Your task to perform on an android device: Search for flights from Seoul to Mexico city Image 0: 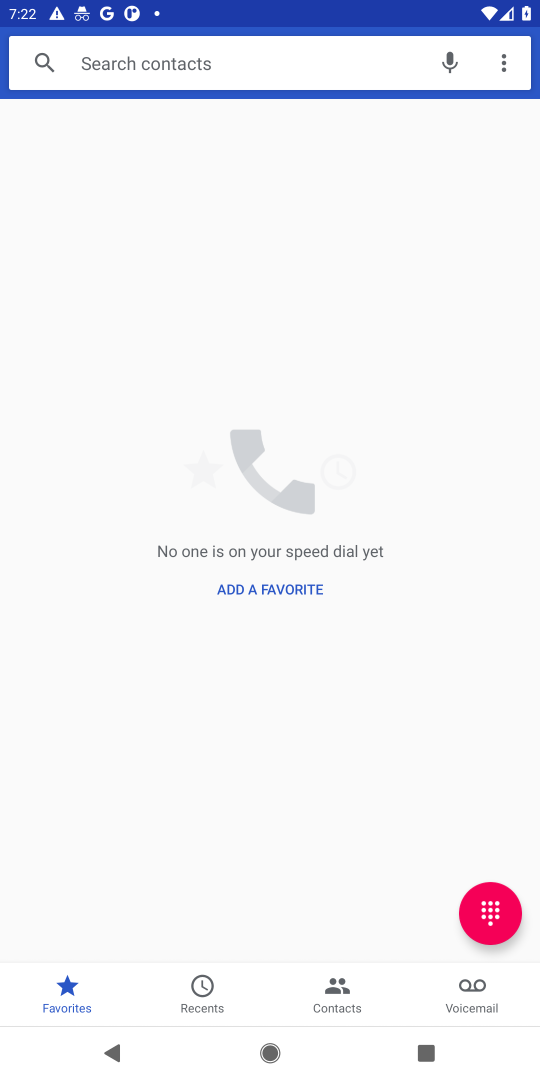
Step 0: press home button
Your task to perform on an android device: Search for flights from Seoul to Mexico city Image 1: 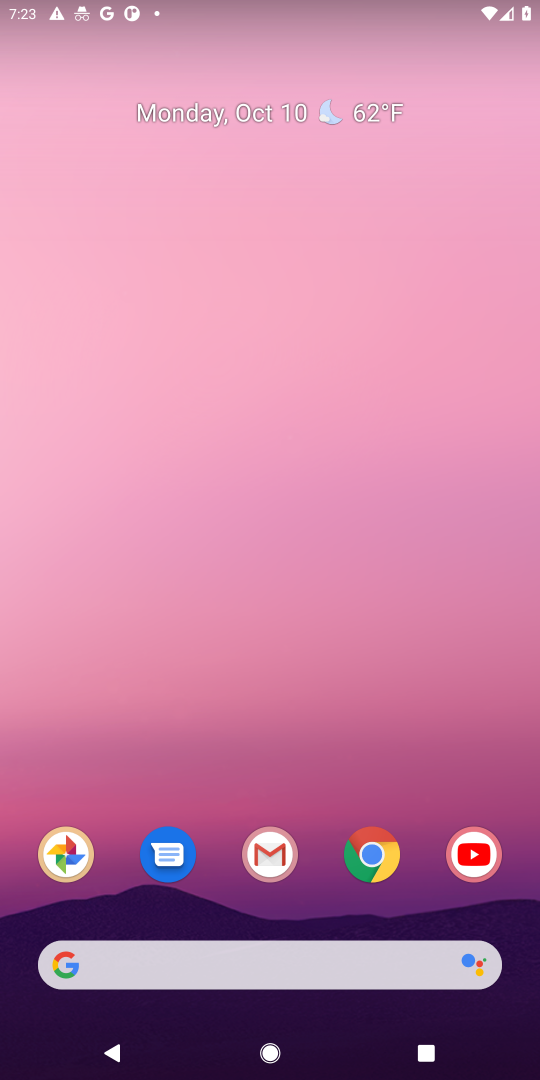
Step 1: click (375, 853)
Your task to perform on an android device: Search for flights from Seoul to Mexico city Image 2: 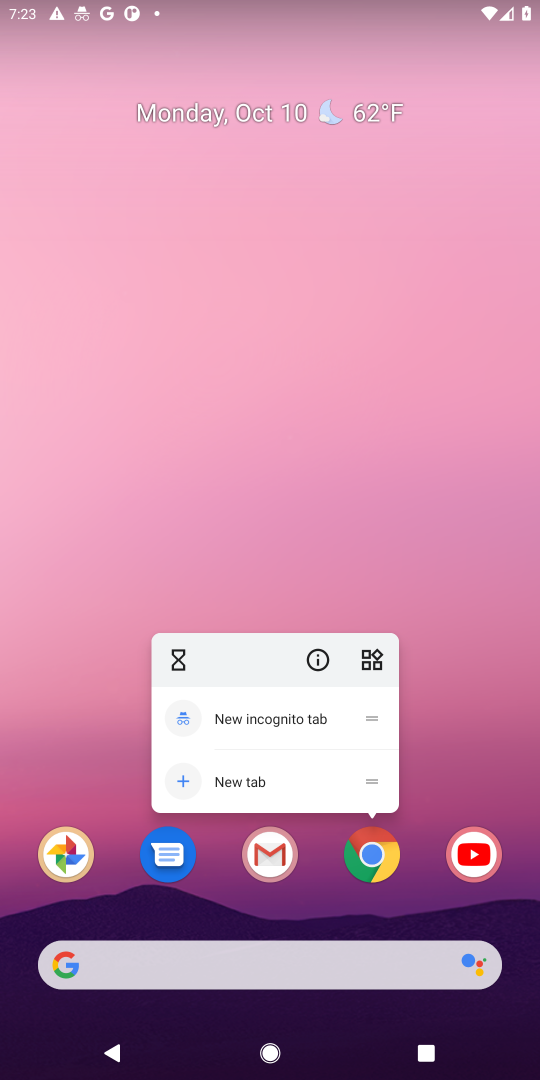
Step 2: click (363, 860)
Your task to perform on an android device: Search for flights from Seoul to Mexico city Image 3: 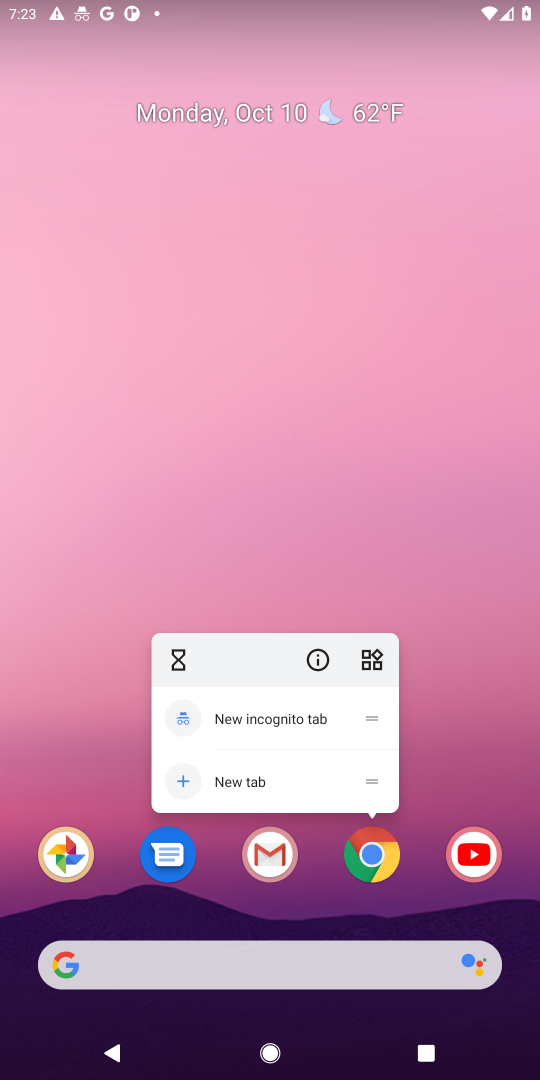
Step 3: click (363, 860)
Your task to perform on an android device: Search for flights from Seoul to Mexico city Image 4: 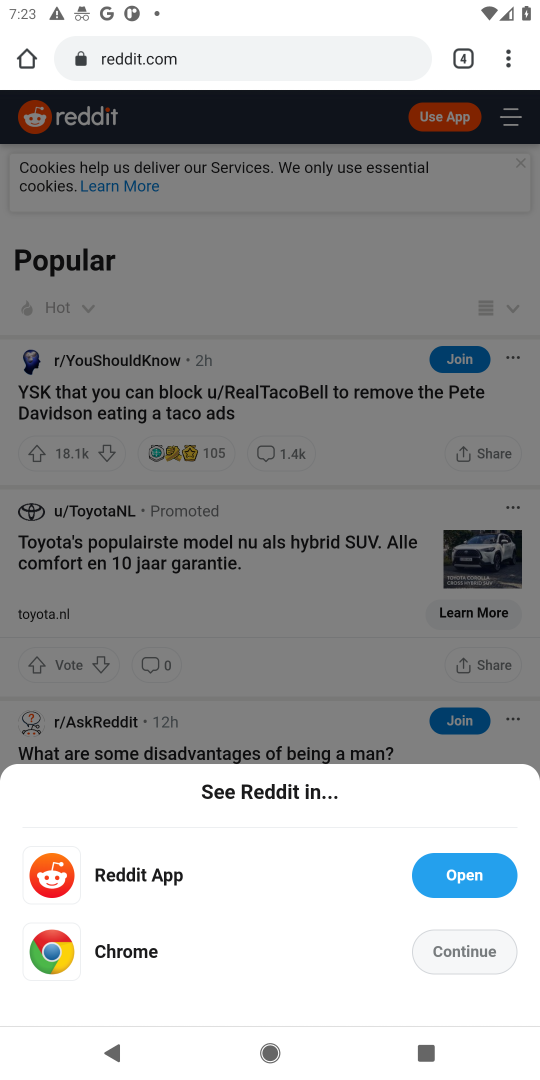
Step 4: click (309, 57)
Your task to perform on an android device: Search for flights from Seoul to Mexico city Image 5: 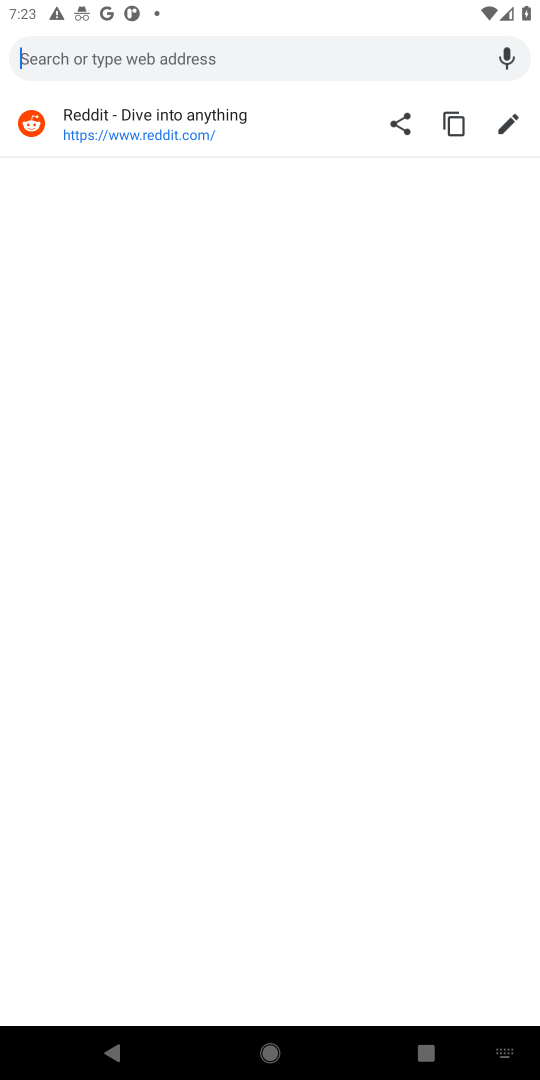
Step 5: type "flights from Seoul to Mexico city"
Your task to perform on an android device: Search for flights from Seoul to Mexico city Image 6: 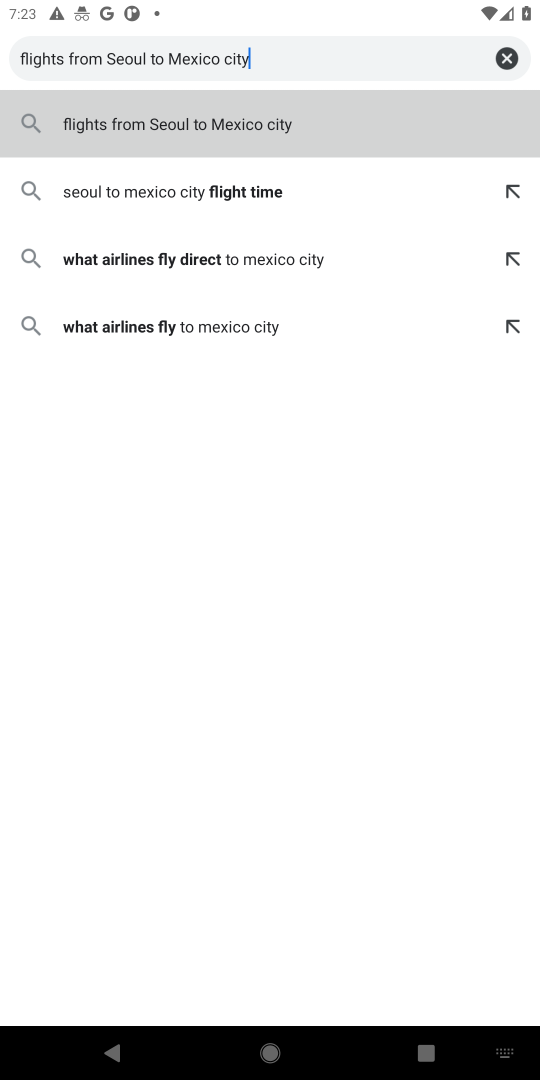
Step 6: click (125, 125)
Your task to perform on an android device: Search for flights from Seoul to Mexico city Image 7: 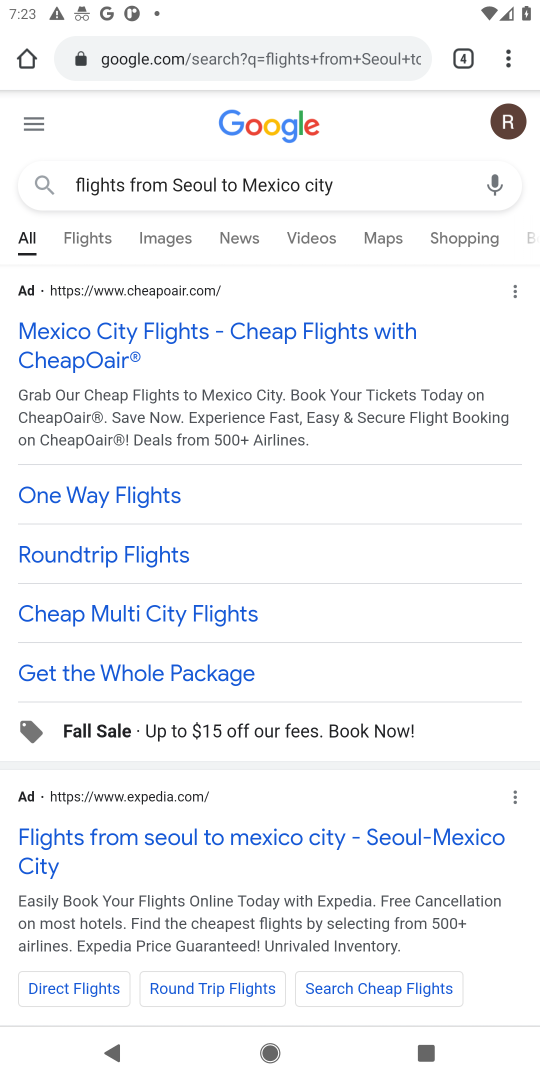
Step 7: drag from (201, 779) to (431, 285)
Your task to perform on an android device: Search for flights from Seoul to Mexico city Image 8: 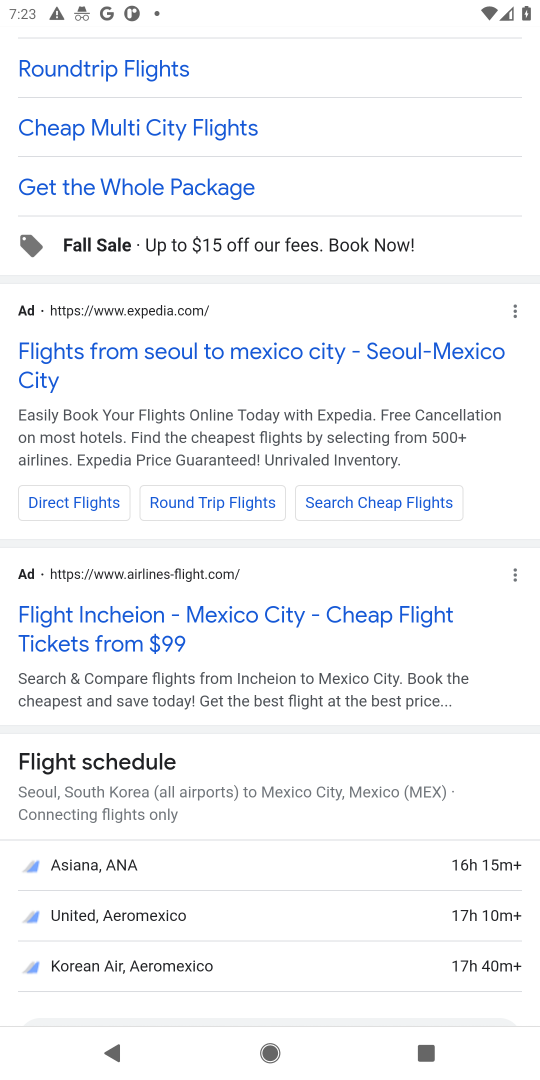
Step 8: drag from (256, 846) to (344, 330)
Your task to perform on an android device: Search for flights from Seoul to Mexico city Image 9: 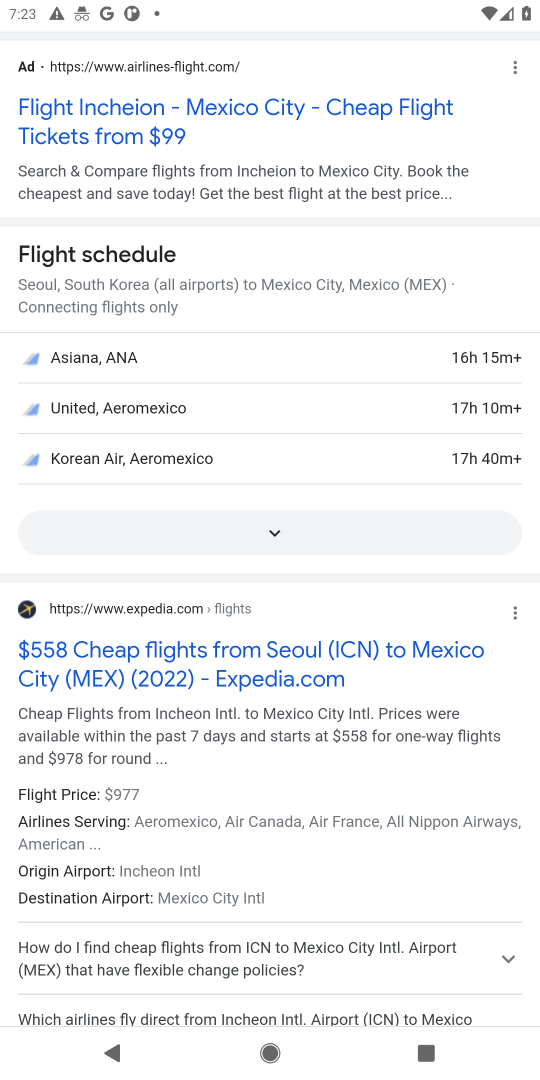
Step 9: click (272, 533)
Your task to perform on an android device: Search for flights from Seoul to Mexico city Image 10: 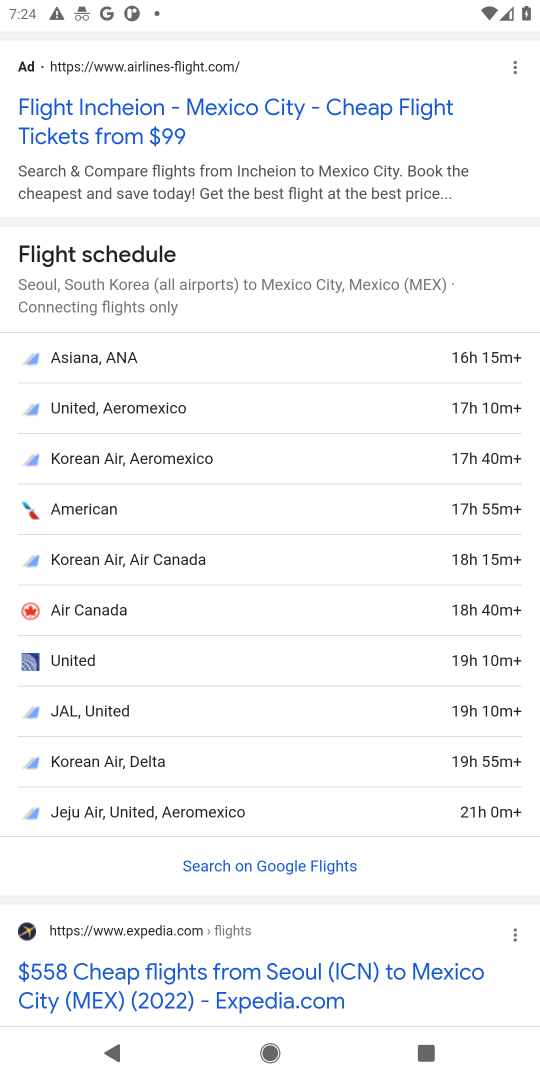
Step 10: task complete